Your task to perform on an android device: Play the last video I watched on Youtube Image 0: 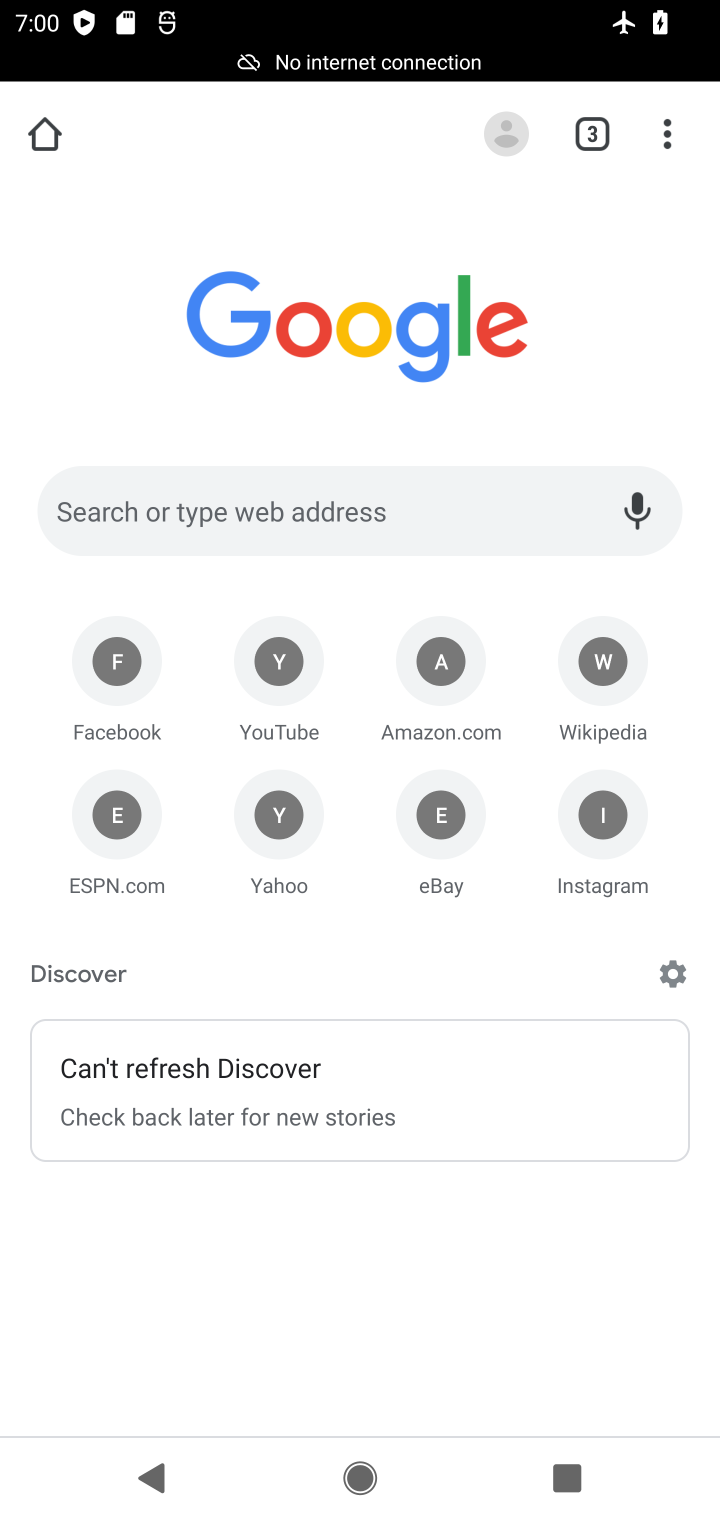
Step 0: press home button
Your task to perform on an android device: Play the last video I watched on Youtube Image 1: 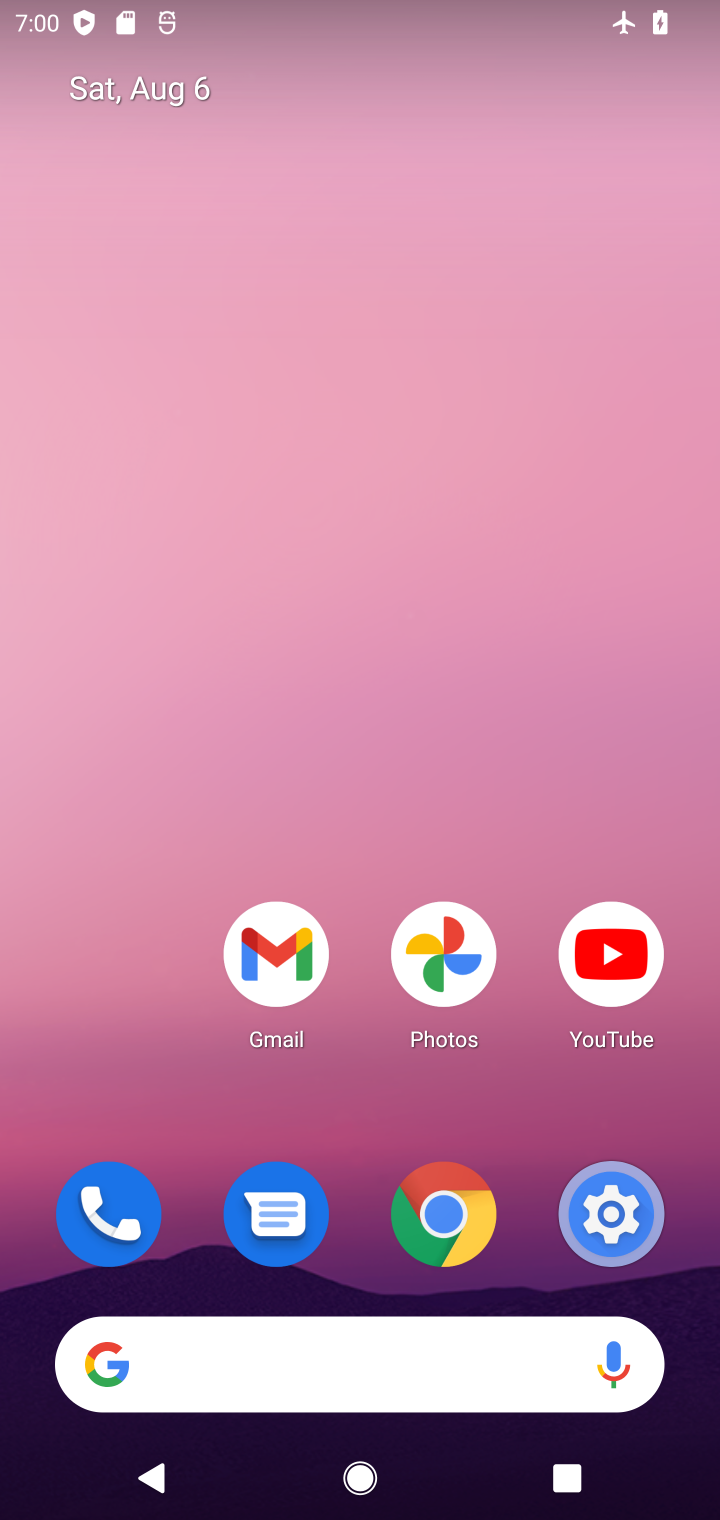
Step 1: click (612, 940)
Your task to perform on an android device: Play the last video I watched on Youtube Image 2: 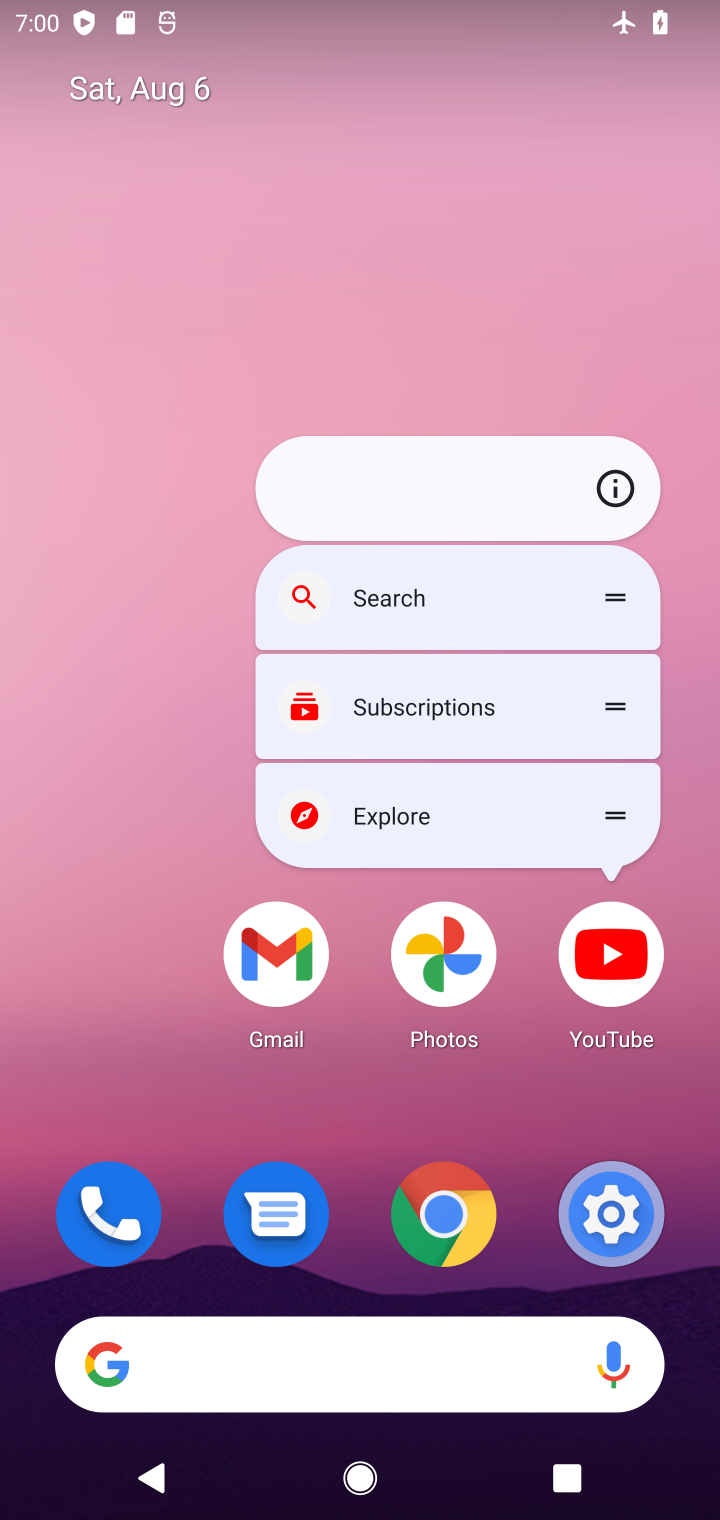
Step 2: click (612, 940)
Your task to perform on an android device: Play the last video I watched on Youtube Image 3: 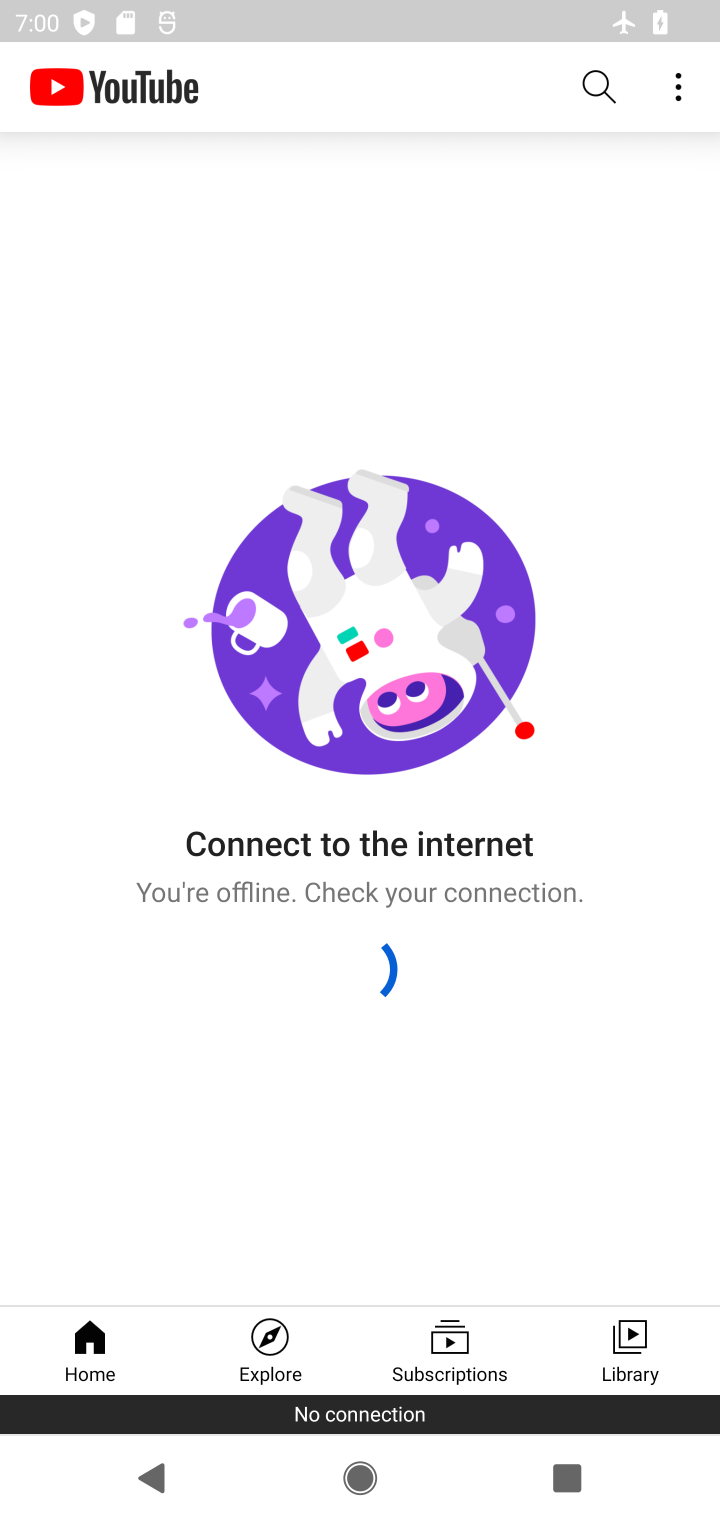
Step 3: click (629, 1364)
Your task to perform on an android device: Play the last video I watched on Youtube Image 4: 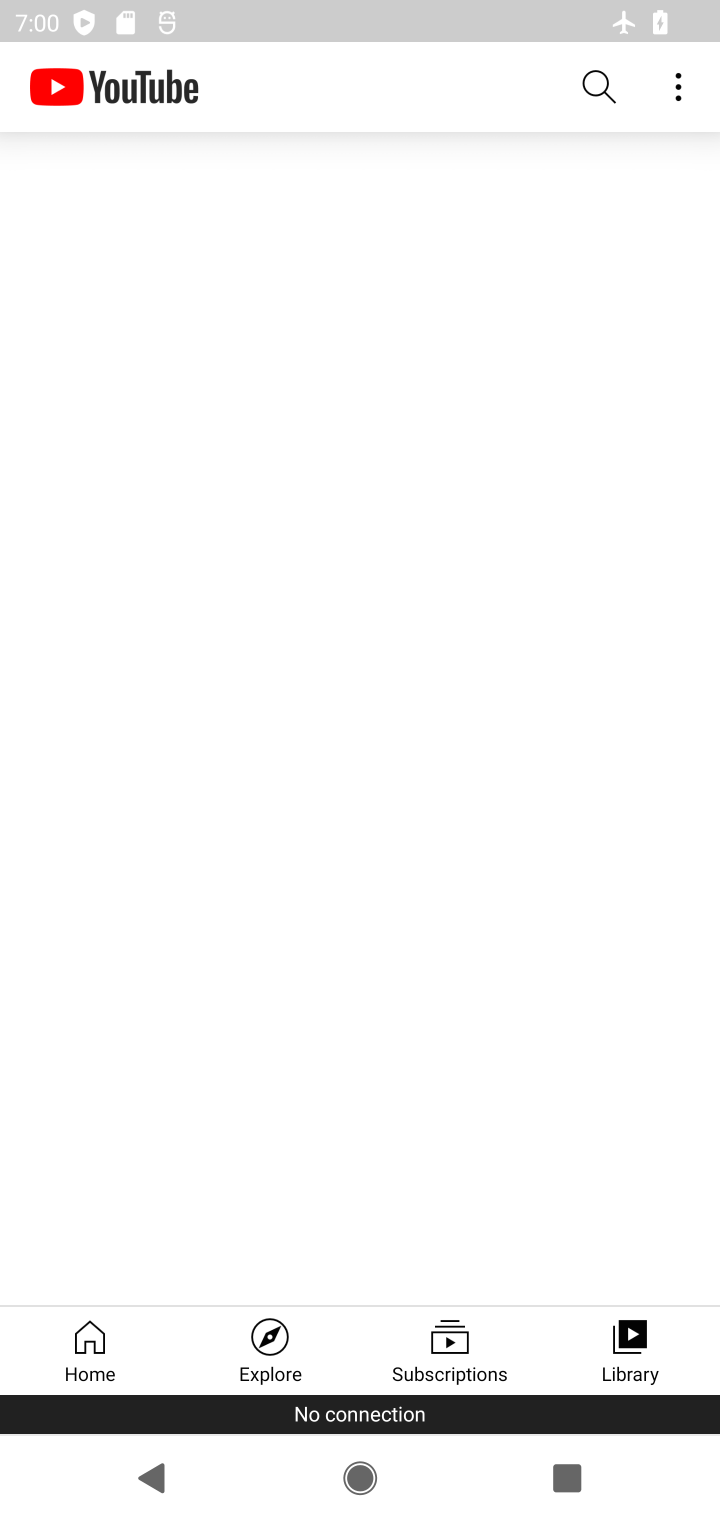
Step 4: task complete